Your task to perform on an android device: change your default location settings in chrome Image 0: 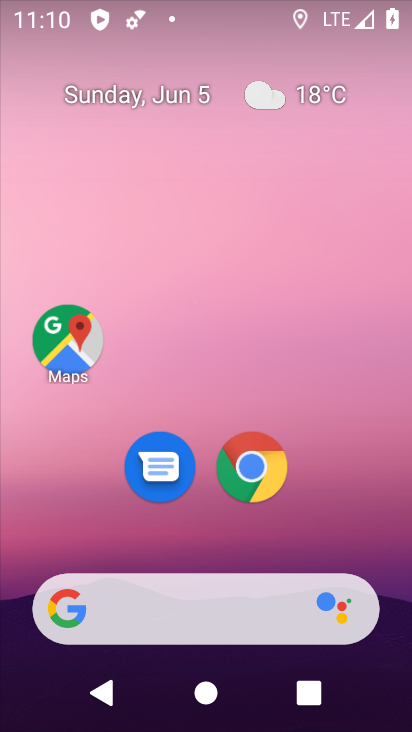
Step 0: press back button
Your task to perform on an android device: change your default location settings in chrome Image 1: 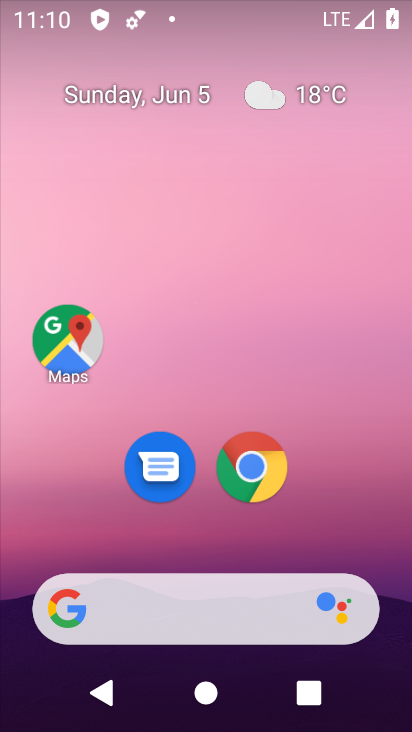
Step 1: click (231, 471)
Your task to perform on an android device: change your default location settings in chrome Image 2: 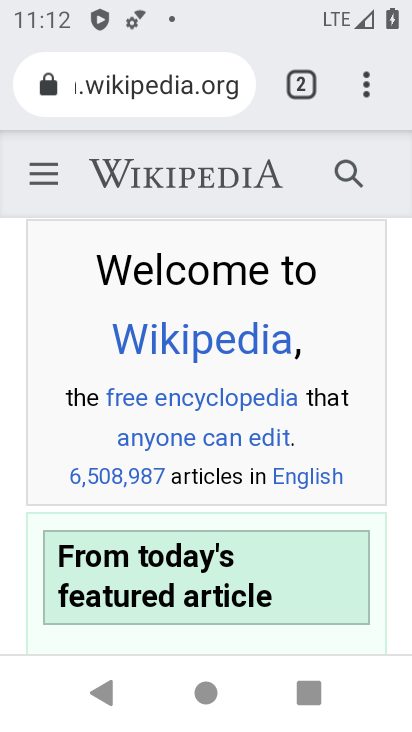
Step 2: click (368, 82)
Your task to perform on an android device: change your default location settings in chrome Image 3: 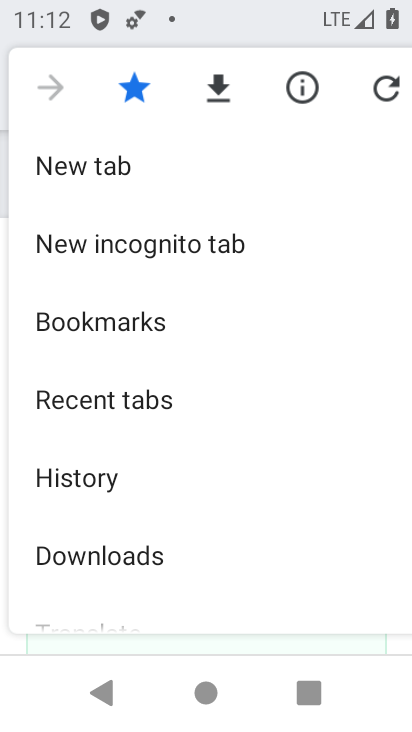
Step 3: drag from (294, 516) to (299, 179)
Your task to perform on an android device: change your default location settings in chrome Image 4: 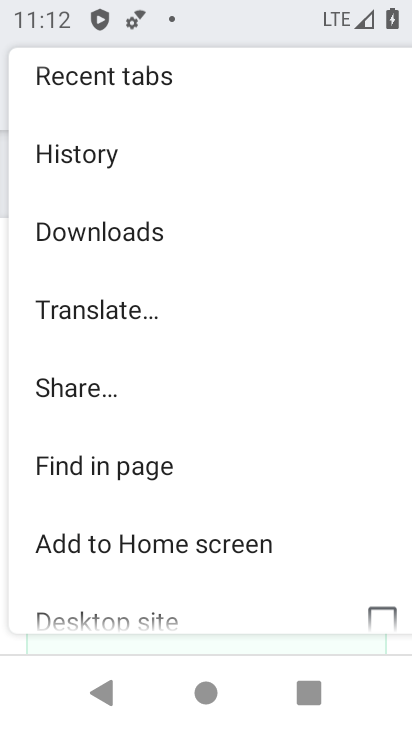
Step 4: drag from (136, 449) to (144, 204)
Your task to perform on an android device: change your default location settings in chrome Image 5: 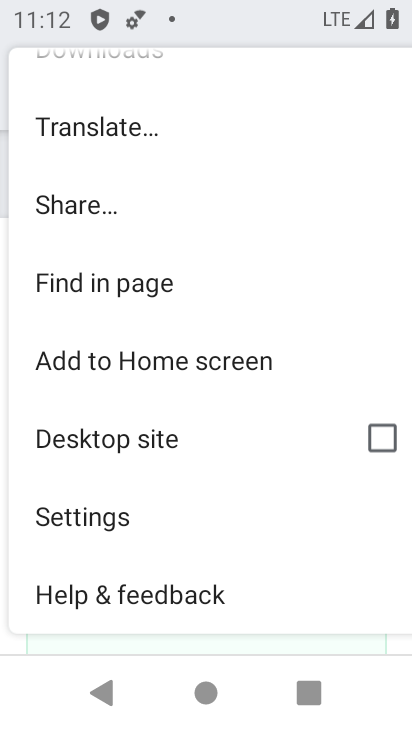
Step 5: click (96, 502)
Your task to perform on an android device: change your default location settings in chrome Image 6: 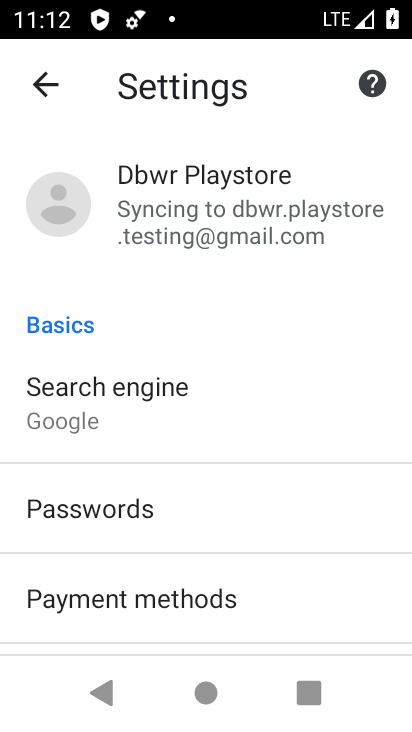
Step 6: drag from (155, 534) to (126, 295)
Your task to perform on an android device: change your default location settings in chrome Image 7: 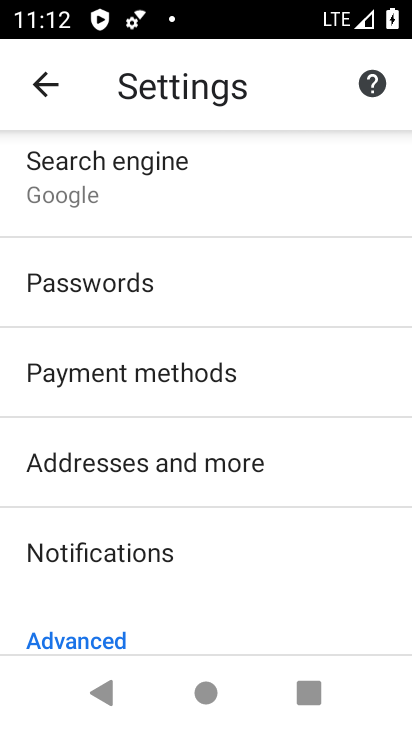
Step 7: drag from (195, 560) to (156, 99)
Your task to perform on an android device: change your default location settings in chrome Image 8: 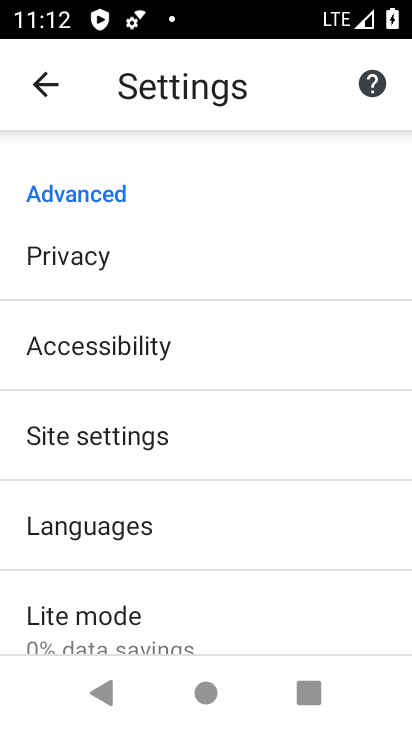
Step 8: click (93, 436)
Your task to perform on an android device: change your default location settings in chrome Image 9: 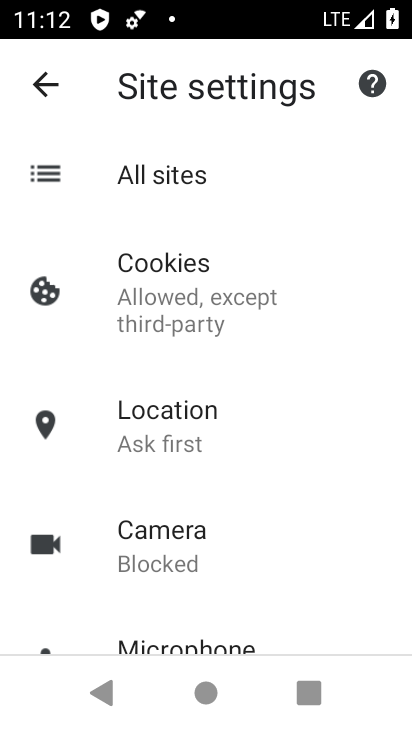
Step 9: click (93, 436)
Your task to perform on an android device: change your default location settings in chrome Image 10: 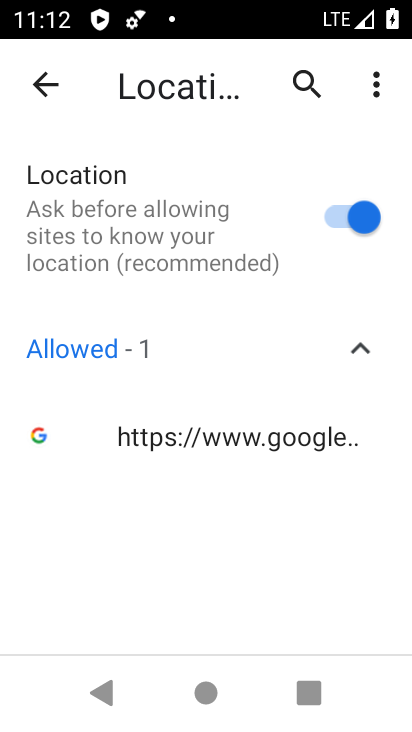
Step 10: click (340, 213)
Your task to perform on an android device: change your default location settings in chrome Image 11: 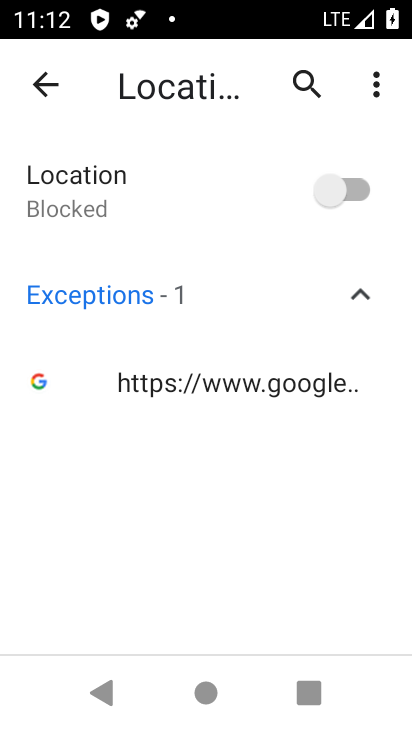
Step 11: task complete